Your task to perform on an android device: turn on data saver in the chrome app Image 0: 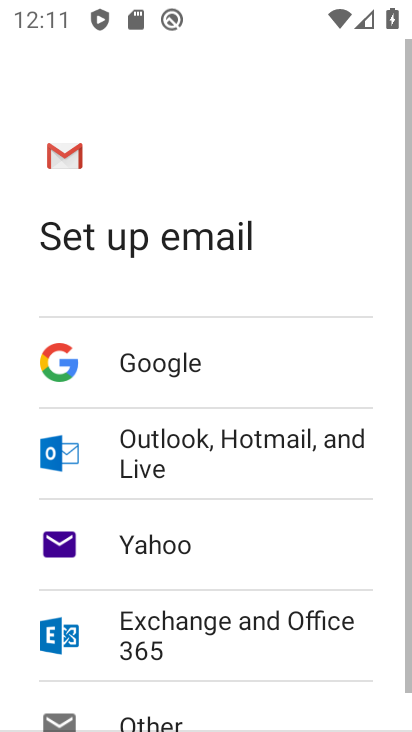
Step 0: press home button
Your task to perform on an android device: turn on data saver in the chrome app Image 1: 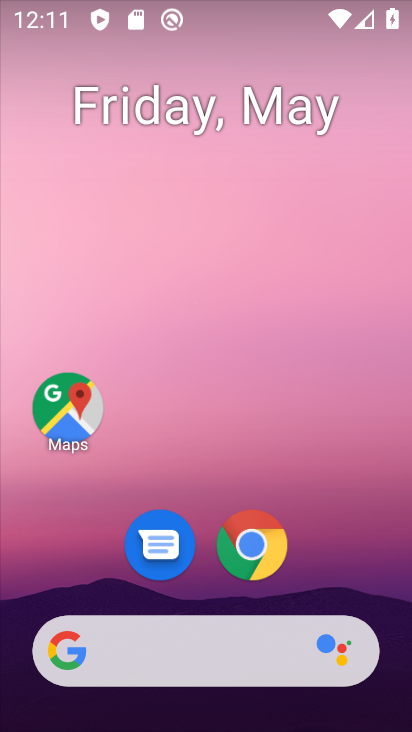
Step 1: click (253, 545)
Your task to perform on an android device: turn on data saver in the chrome app Image 2: 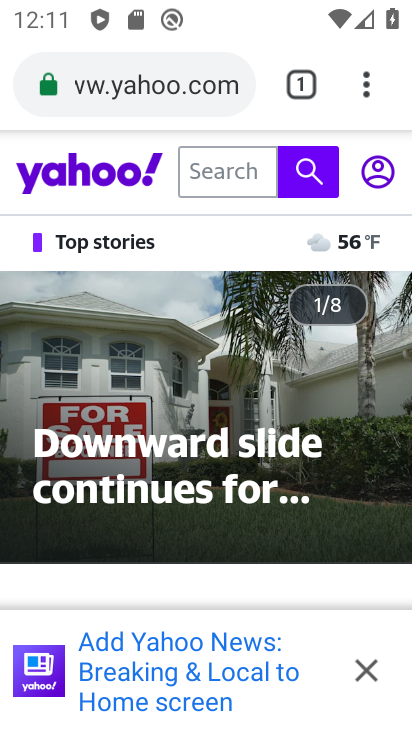
Step 2: click (373, 89)
Your task to perform on an android device: turn on data saver in the chrome app Image 3: 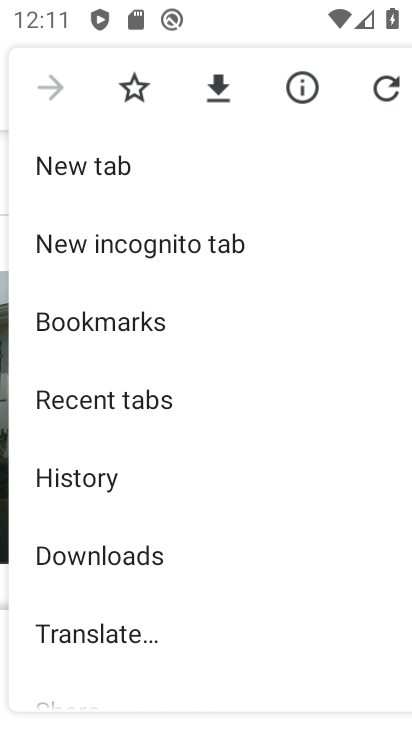
Step 3: drag from (206, 602) to (190, 277)
Your task to perform on an android device: turn on data saver in the chrome app Image 4: 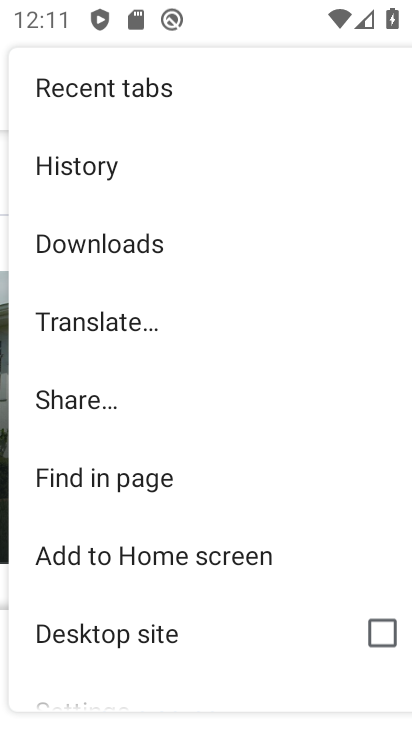
Step 4: drag from (156, 653) to (212, 257)
Your task to perform on an android device: turn on data saver in the chrome app Image 5: 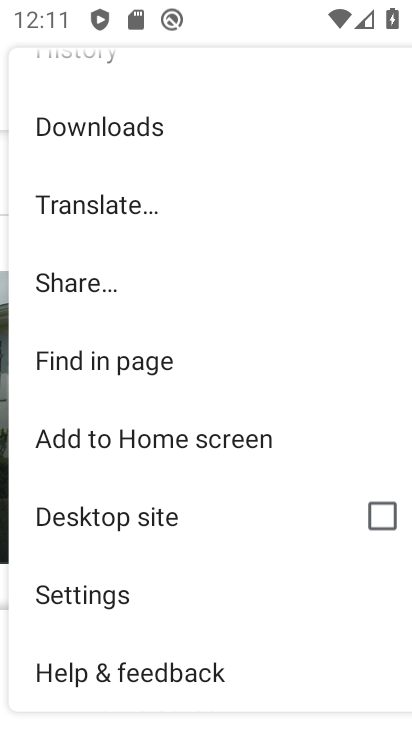
Step 5: click (114, 588)
Your task to perform on an android device: turn on data saver in the chrome app Image 6: 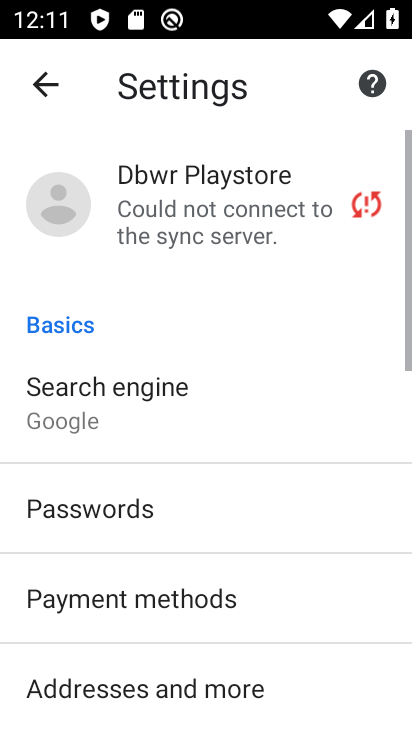
Step 6: drag from (217, 639) to (248, 155)
Your task to perform on an android device: turn on data saver in the chrome app Image 7: 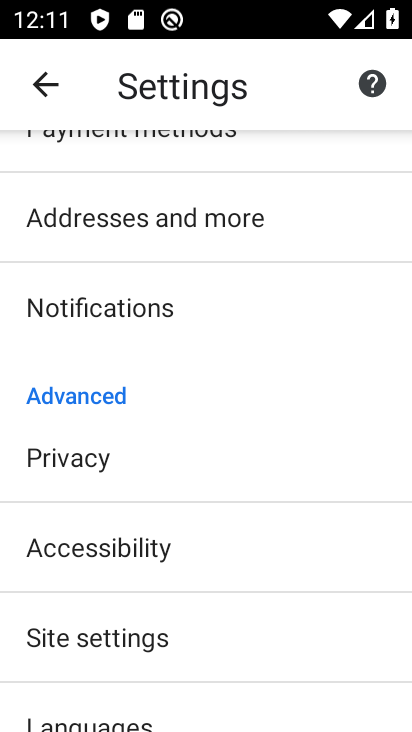
Step 7: drag from (192, 666) to (192, 286)
Your task to perform on an android device: turn on data saver in the chrome app Image 8: 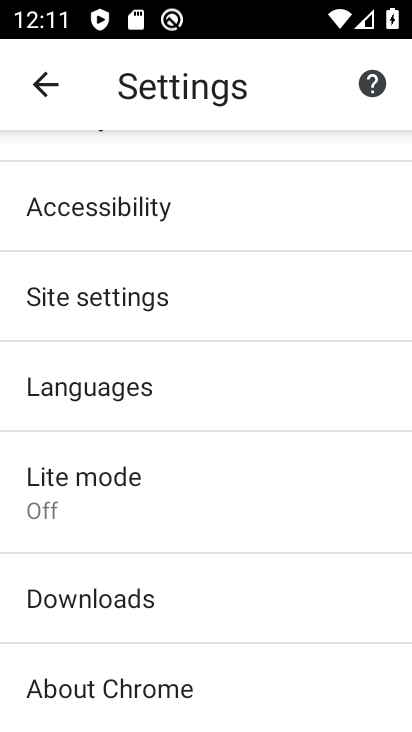
Step 8: click (122, 500)
Your task to perform on an android device: turn on data saver in the chrome app Image 9: 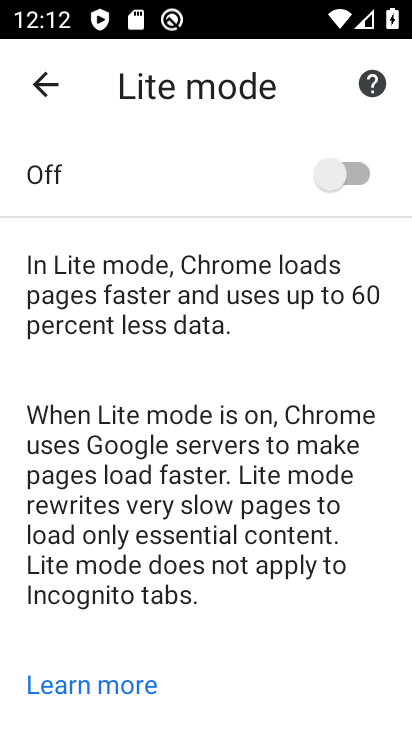
Step 9: click (360, 165)
Your task to perform on an android device: turn on data saver in the chrome app Image 10: 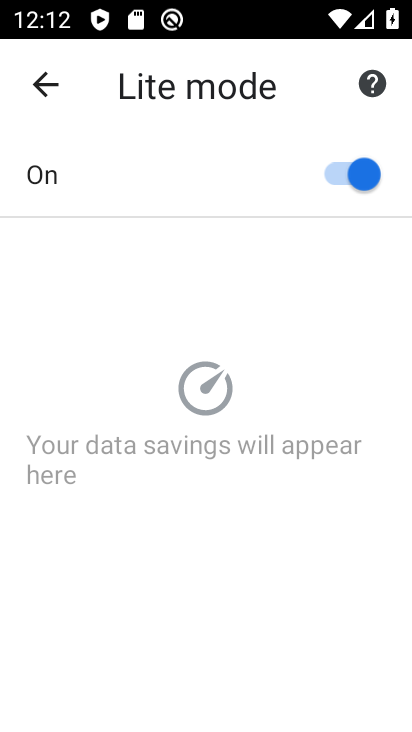
Step 10: task complete